Your task to perform on an android device: Search for a new water heater on Home Depot Image 0: 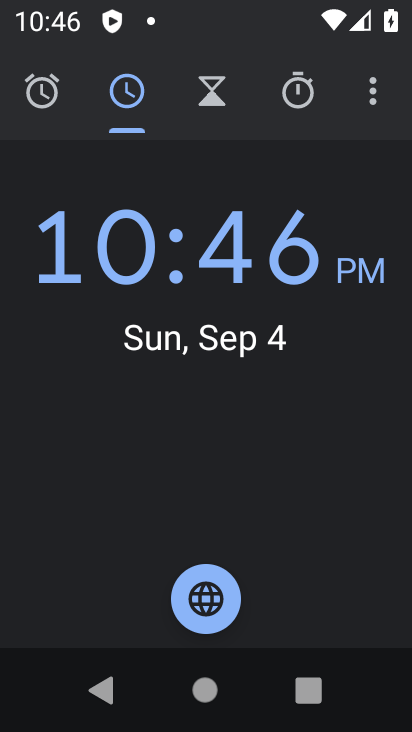
Step 0: press home button
Your task to perform on an android device: Search for a new water heater on Home Depot Image 1: 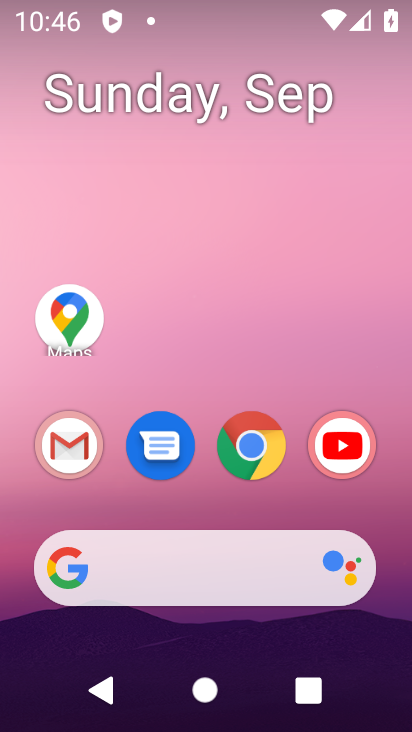
Step 1: drag from (266, 291) to (336, 83)
Your task to perform on an android device: Search for a new water heater on Home Depot Image 2: 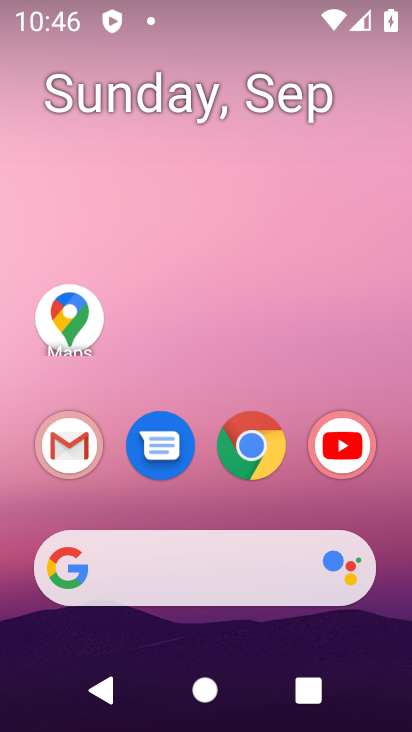
Step 2: drag from (326, 4) to (191, 99)
Your task to perform on an android device: Search for a new water heater on Home Depot Image 3: 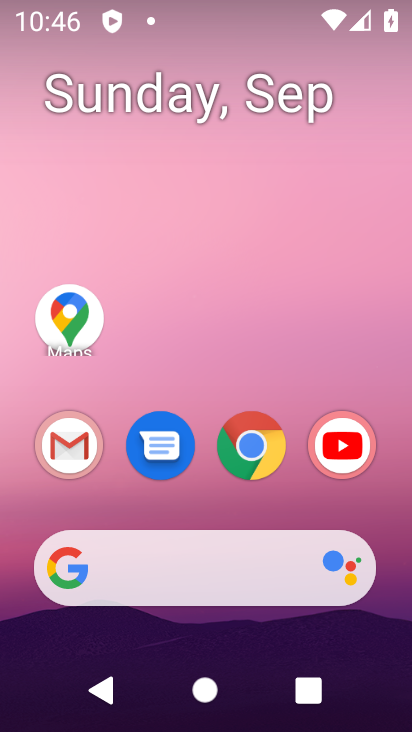
Step 3: drag from (195, 594) to (379, 115)
Your task to perform on an android device: Search for a new water heater on Home Depot Image 4: 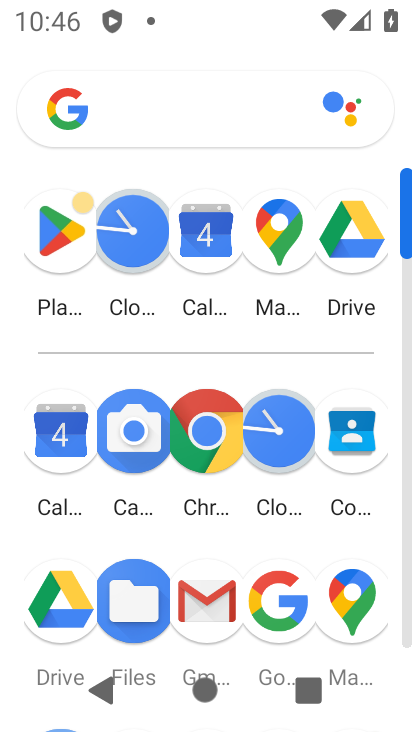
Step 4: click (202, 448)
Your task to perform on an android device: Search for a new water heater on Home Depot Image 5: 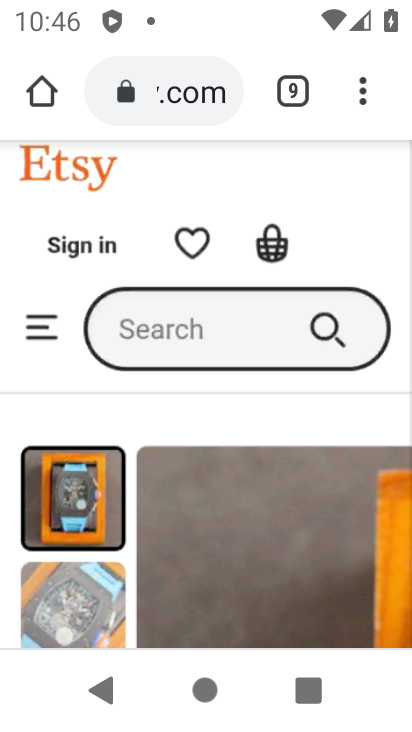
Step 5: click (178, 93)
Your task to perform on an android device: Search for a new water heater on Home Depot Image 6: 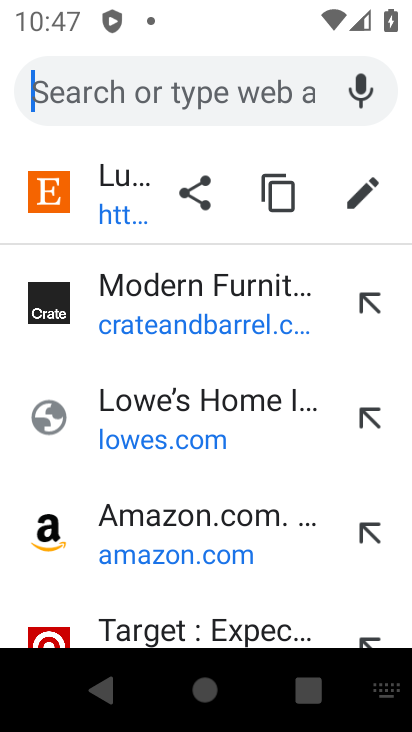
Step 6: press enter
Your task to perform on an android device: Search for a new water heater on Home Depot Image 7: 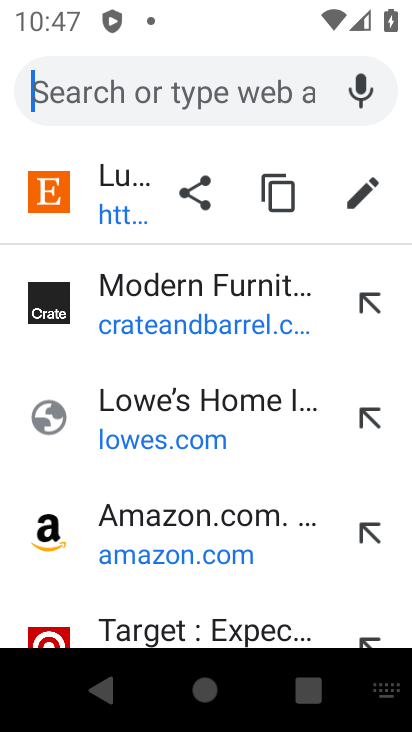
Step 7: type " Home Depot"
Your task to perform on an android device: Search for a new water heater on Home Depot Image 8: 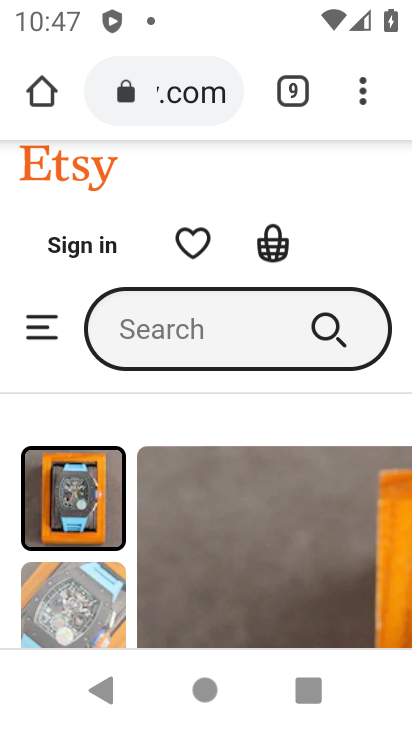
Step 8: click (202, 102)
Your task to perform on an android device: Search for a new water heater on Home Depot Image 9: 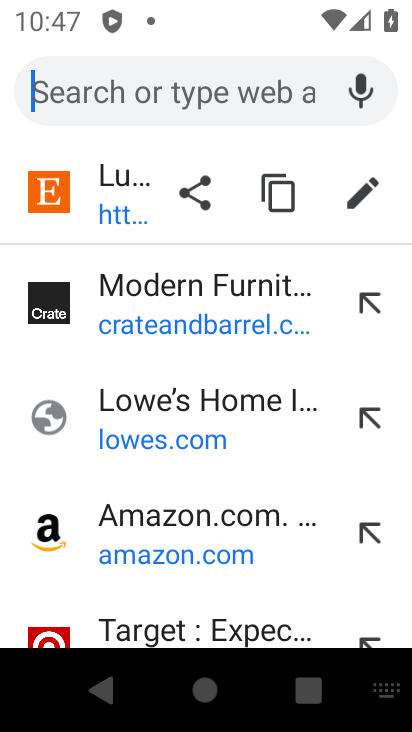
Step 9: type "Home Depot"
Your task to perform on an android device: Search for a new water heater on Home Depot Image 10: 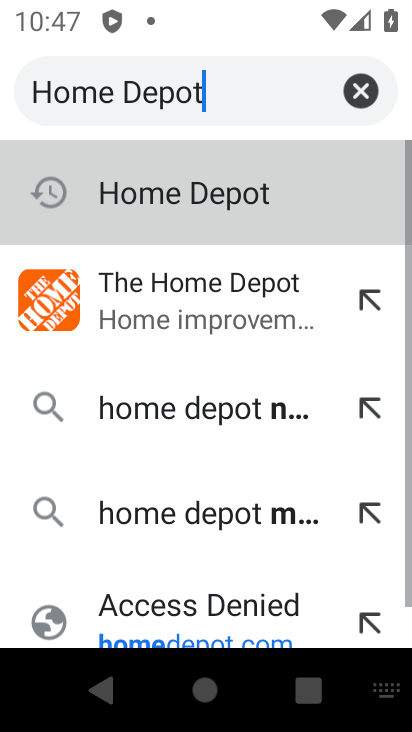
Step 10: press enter
Your task to perform on an android device: Search for a new water heater on Home Depot Image 11: 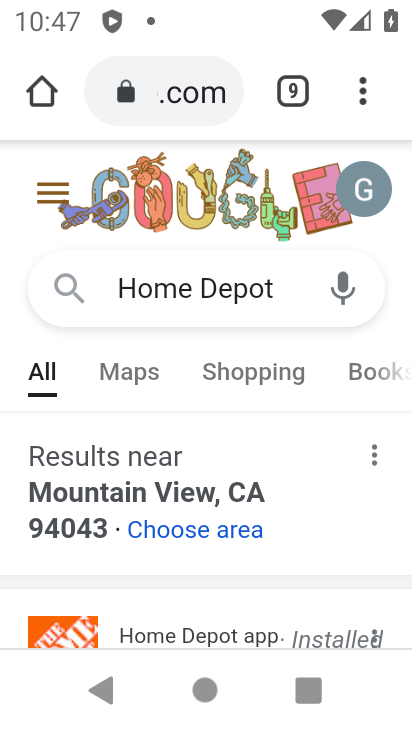
Step 11: drag from (216, 584) to (308, 174)
Your task to perform on an android device: Search for a new water heater on Home Depot Image 12: 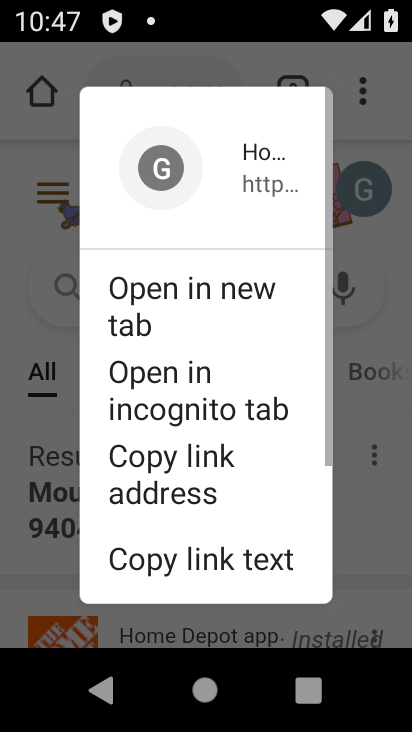
Step 12: click (376, 455)
Your task to perform on an android device: Search for a new water heater on Home Depot Image 13: 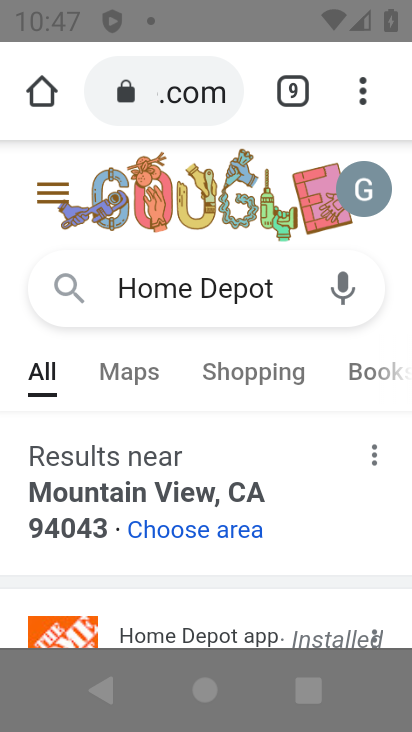
Step 13: drag from (302, 386) to (353, 203)
Your task to perform on an android device: Search for a new water heater on Home Depot Image 14: 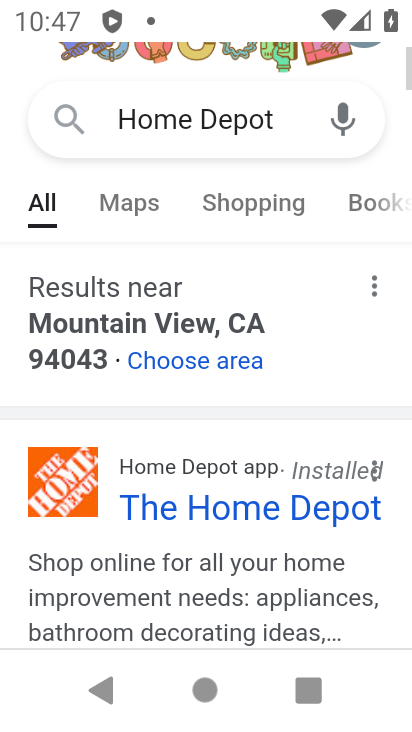
Step 14: click (187, 503)
Your task to perform on an android device: Search for a new water heater on Home Depot Image 15: 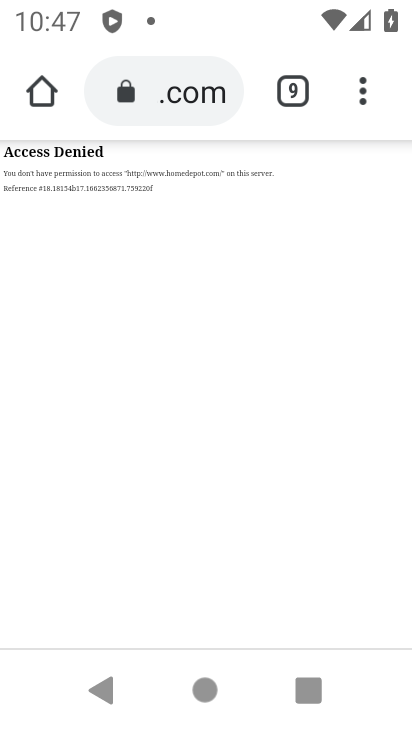
Step 15: press back button
Your task to perform on an android device: Search for a new water heater on Home Depot Image 16: 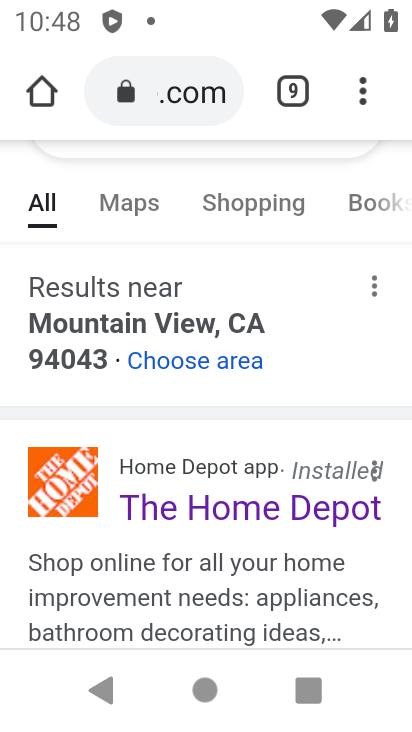
Step 16: drag from (235, 439) to (384, 343)
Your task to perform on an android device: Search for a new water heater on Home Depot Image 17: 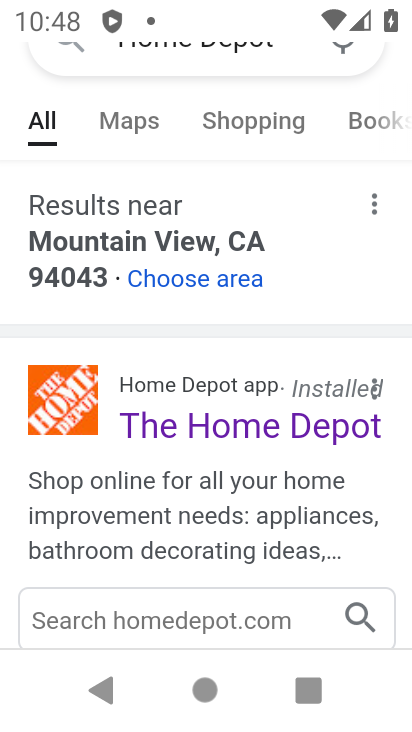
Step 17: drag from (310, 585) to (393, 225)
Your task to perform on an android device: Search for a new water heater on Home Depot Image 18: 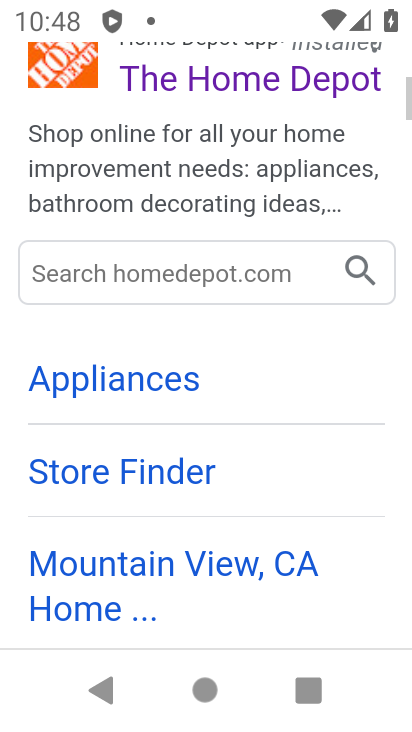
Step 18: drag from (276, 512) to (360, 200)
Your task to perform on an android device: Search for a new water heater on Home Depot Image 19: 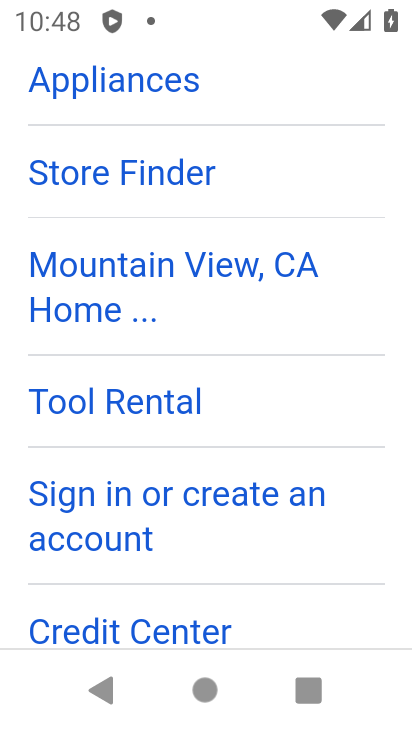
Step 19: drag from (239, 478) to (293, 108)
Your task to perform on an android device: Search for a new water heater on Home Depot Image 20: 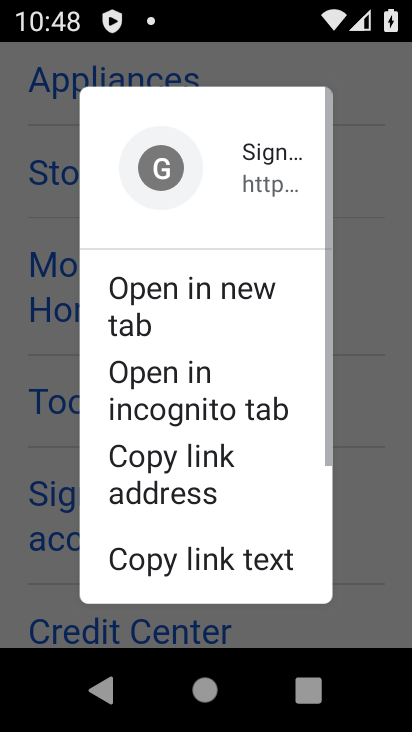
Step 20: click (385, 274)
Your task to perform on an android device: Search for a new water heater on Home Depot Image 21: 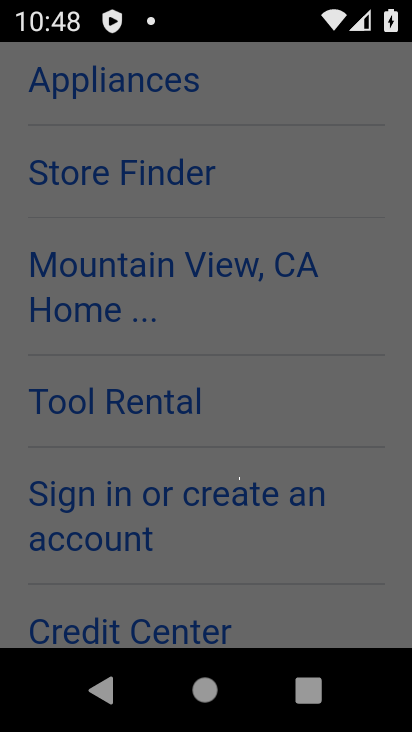
Step 21: drag from (301, 213) to (216, 528)
Your task to perform on an android device: Search for a new water heater on Home Depot Image 22: 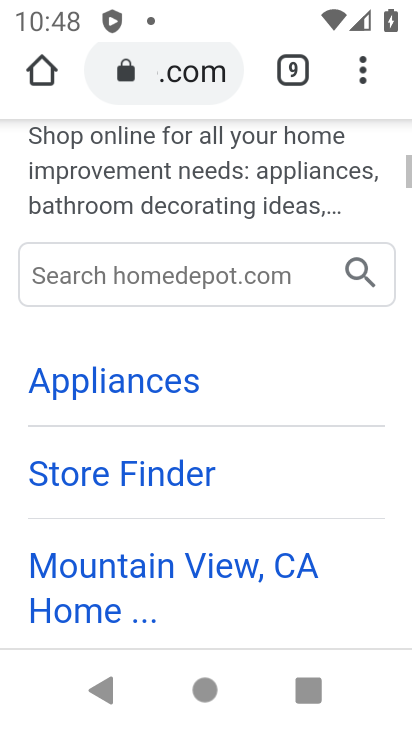
Step 22: drag from (212, 312) to (225, 527)
Your task to perform on an android device: Search for a new water heater on Home Depot Image 23: 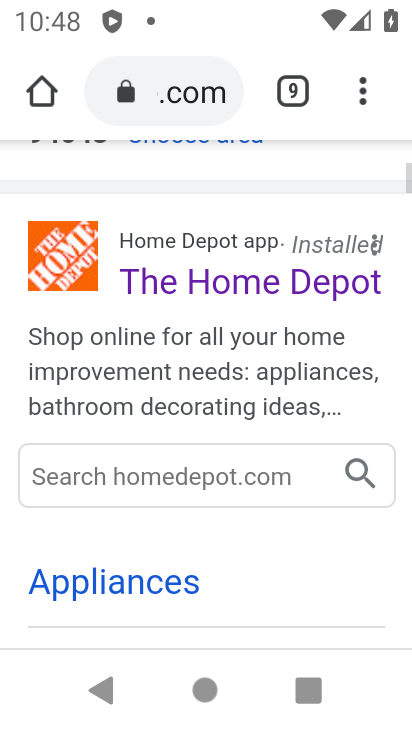
Step 23: click (225, 501)
Your task to perform on an android device: Search for a new water heater on Home Depot Image 24: 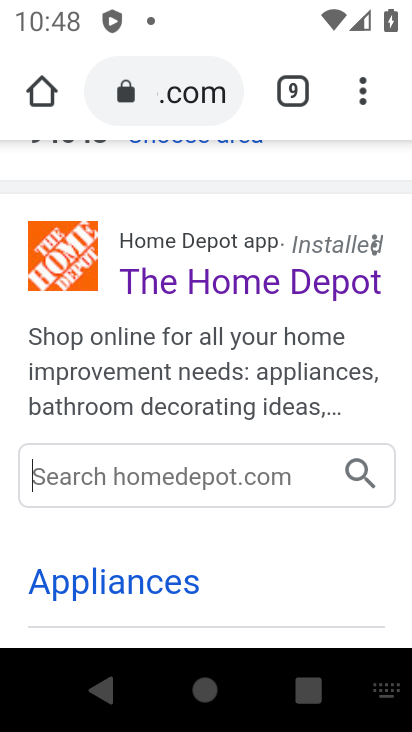
Step 24: drag from (258, 230) to (244, 486)
Your task to perform on an android device: Search for a new water heater on Home Depot Image 25: 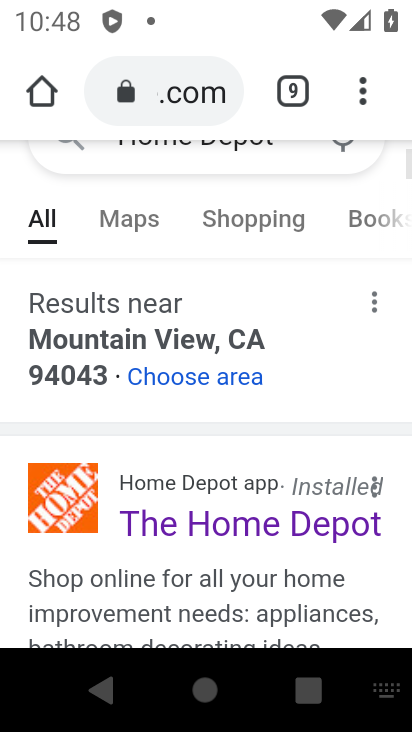
Step 25: click (221, 566)
Your task to perform on an android device: Search for a new water heater on Home Depot Image 26: 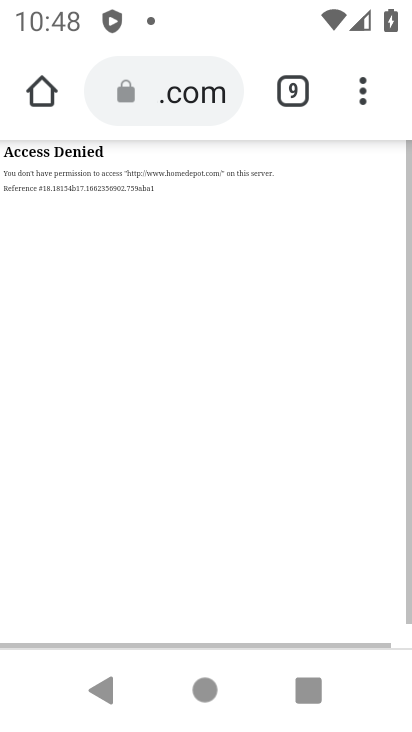
Step 26: task complete